Your task to perform on an android device: What is the recent news? Image 0: 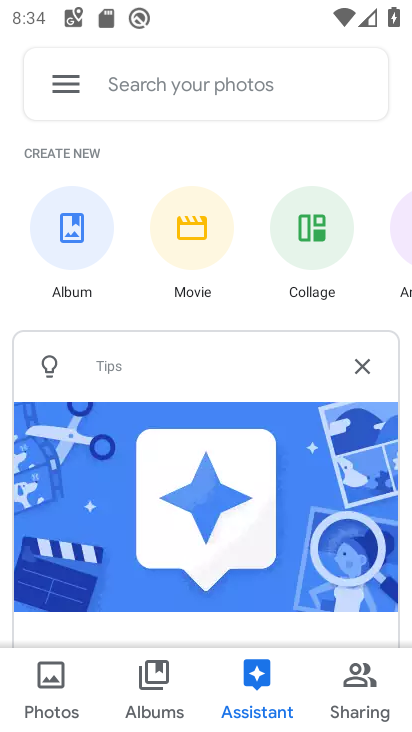
Step 0: press home button
Your task to perform on an android device: What is the recent news? Image 1: 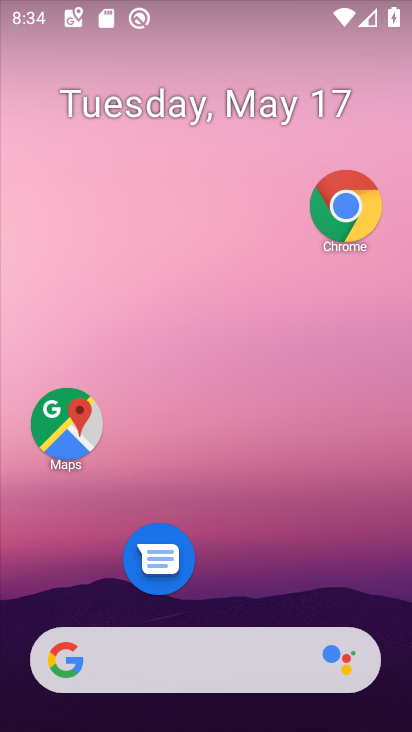
Step 1: drag from (272, 565) to (349, 2)
Your task to perform on an android device: What is the recent news? Image 2: 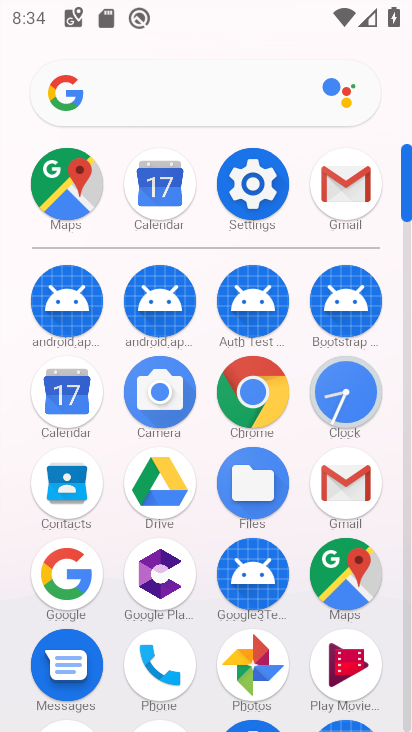
Step 2: drag from (252, 473) to (295, 188)
Your task to perform on an android device: What is the recent news? Image 3: 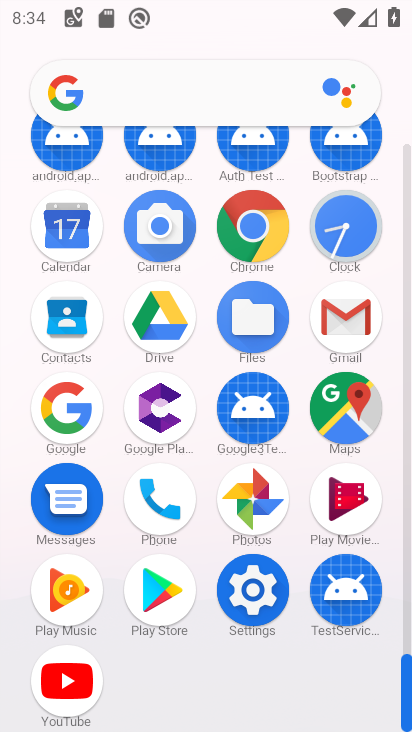
Step 3: click (71, 413)
Your task to perform on an android device: What is the recent news? Image 4: 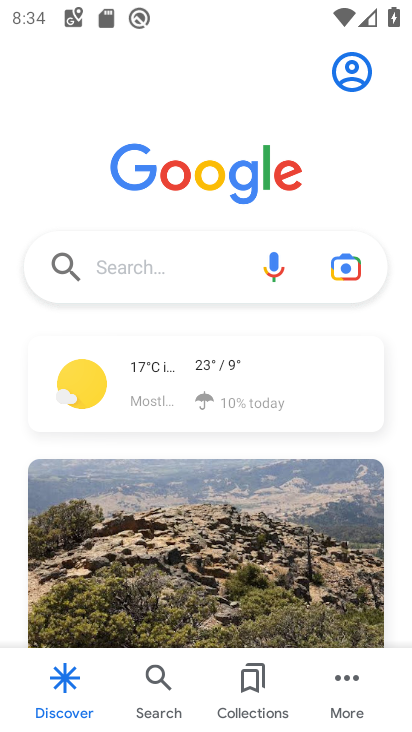
Step 4: click (167, 276)
Your task to perform on an android device: What is the recent news? Image 5: 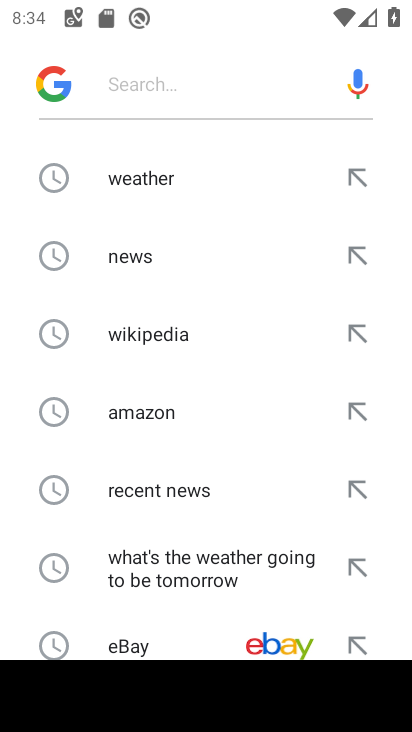
Step 5: click (194, 263)
Your task to perform on an android device: What is the recent news? Image 6: 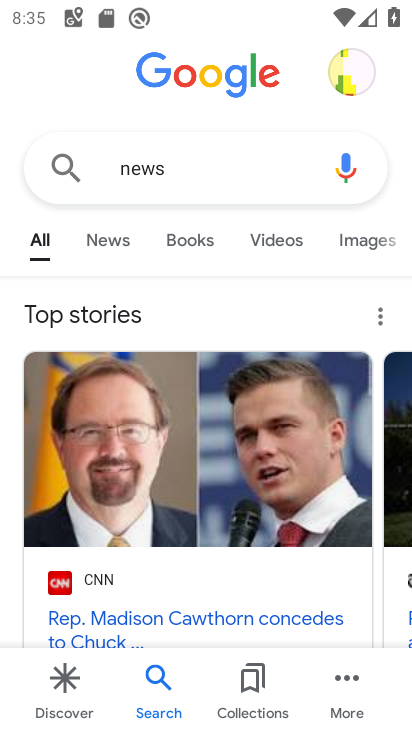
Step 6: click (127, 243)
Your task to perform on an android device: What is the recent news? Image 7: 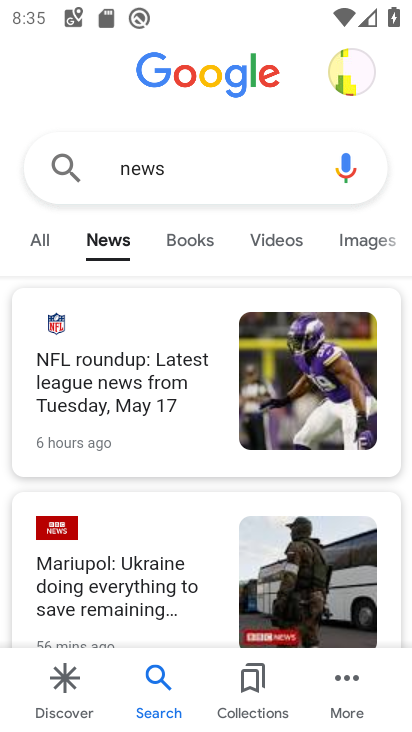
Step 7: task complete